Your task to perform on an android device: delete browsing data in the chrome app Image 0: 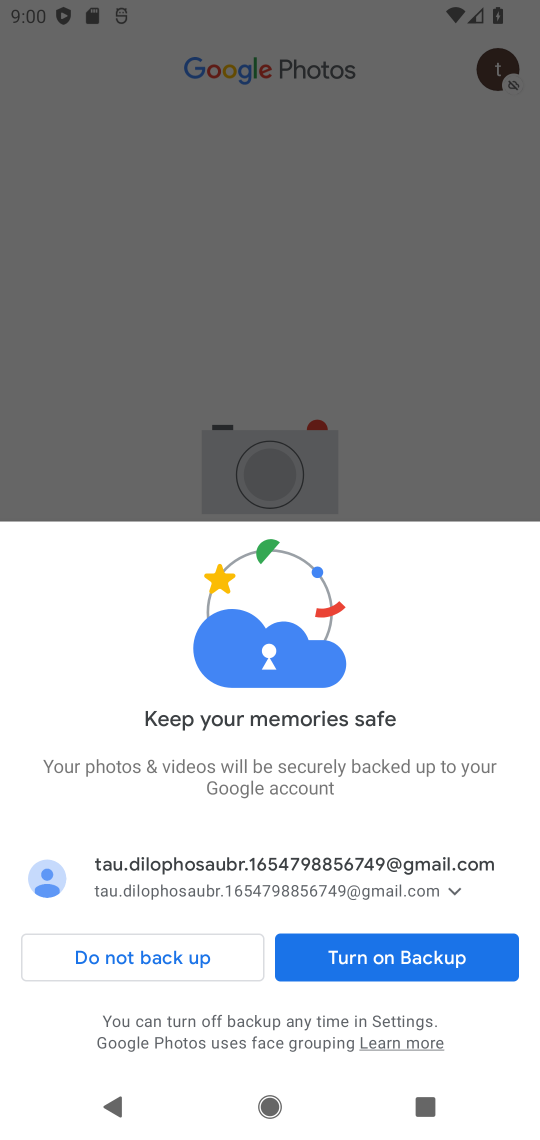
Step 0: press home button
Your task to perform on an android device: delete browsing data in the chrome app Image 1: 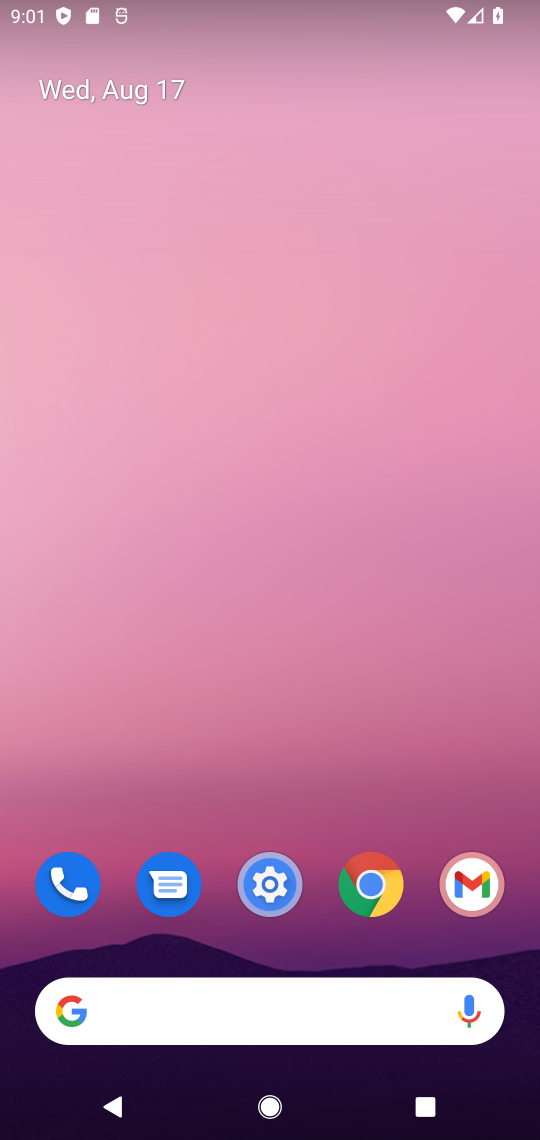
Step 1: click (359, 910)
Your task to perform on an android device: delete browsing data in the chrome app Image 2: 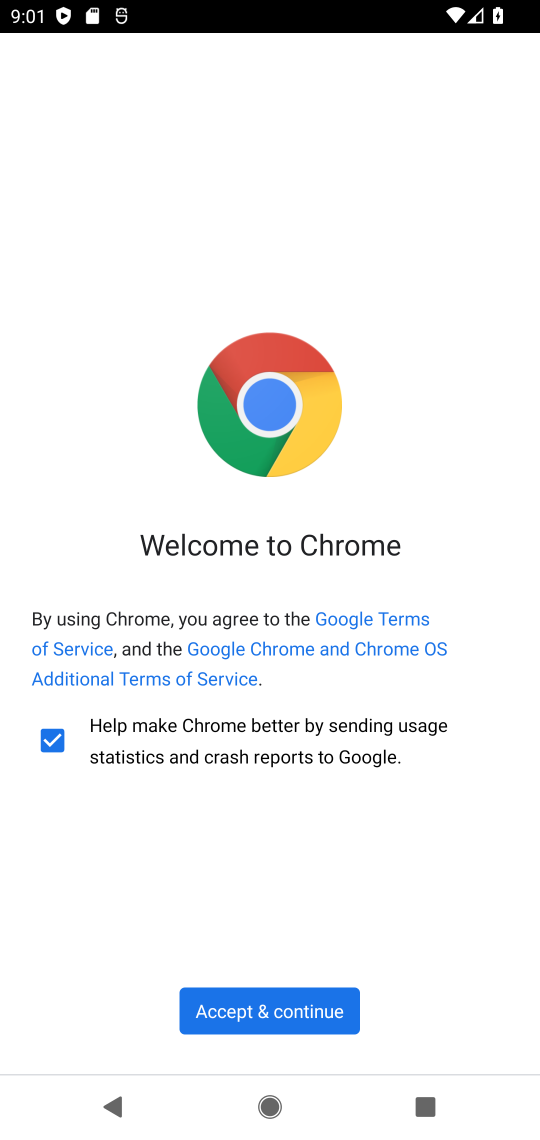
Step 2: click (226, 980)
Your task to perform on an android device: delete browsing data in the chrome app Image 3: 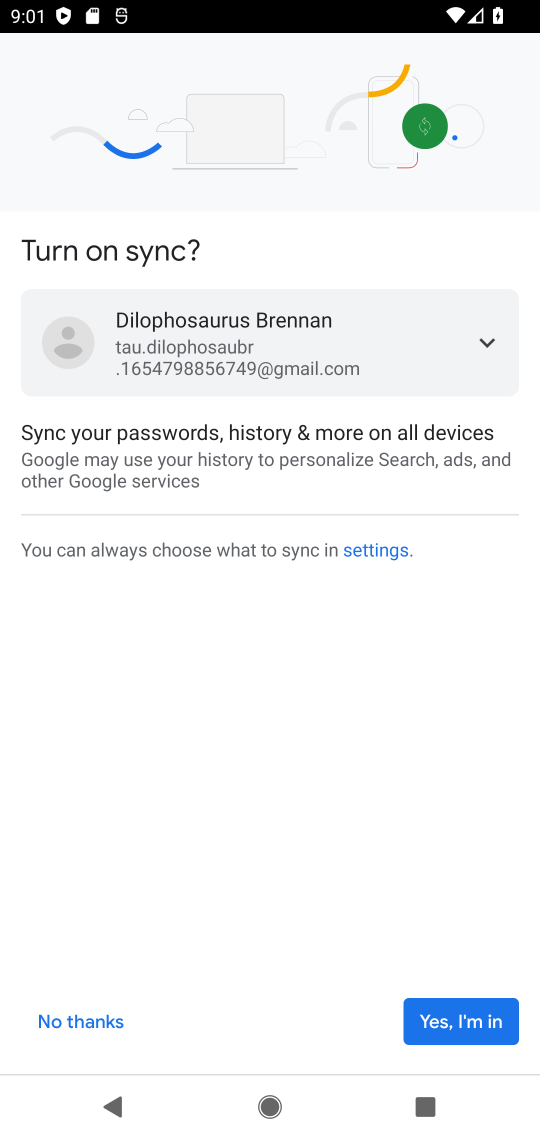
Step 3: click (421, 1015)
Your task to perform on an android device: delete browsing data in the chrome app Image 4: 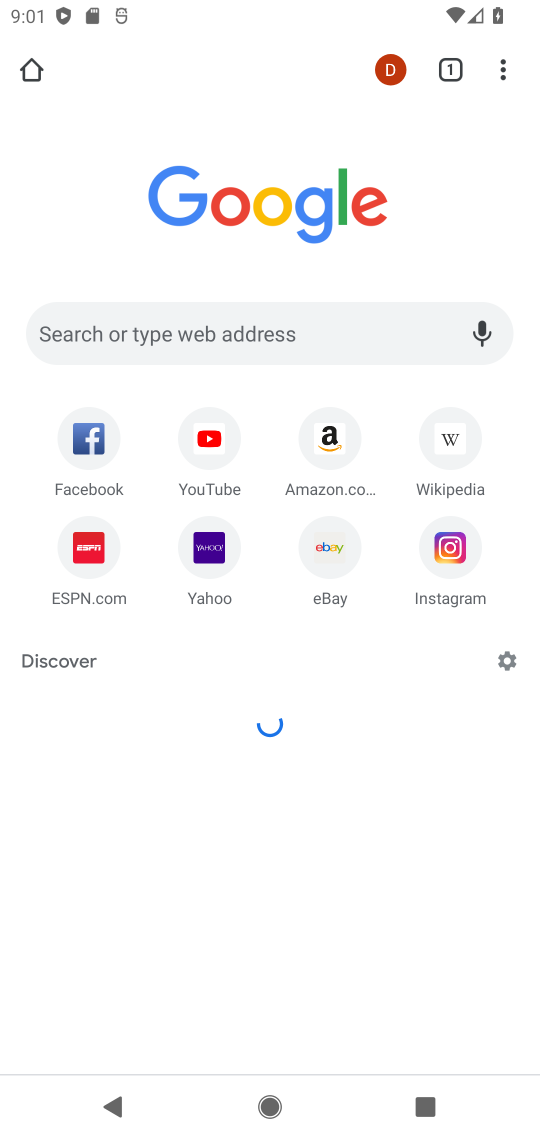
Step 4: click (494, 68)
Your task to perform on an android device: delete browsing data in the chrome app Image 5: 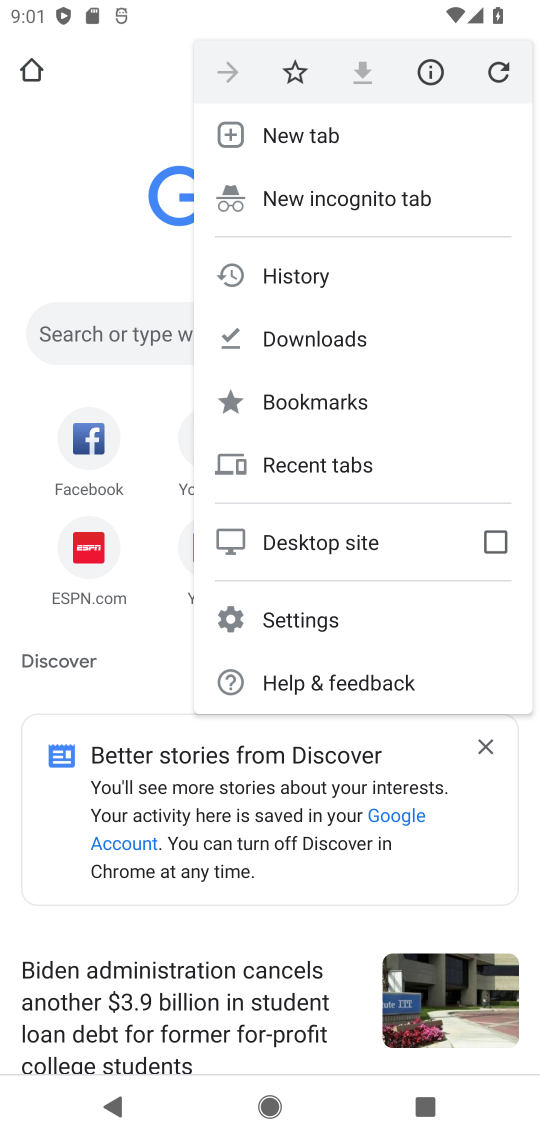
Step 5: click (279, 257)
Your task to perform on an android device: delete browsing data in the chrome app Image 6: 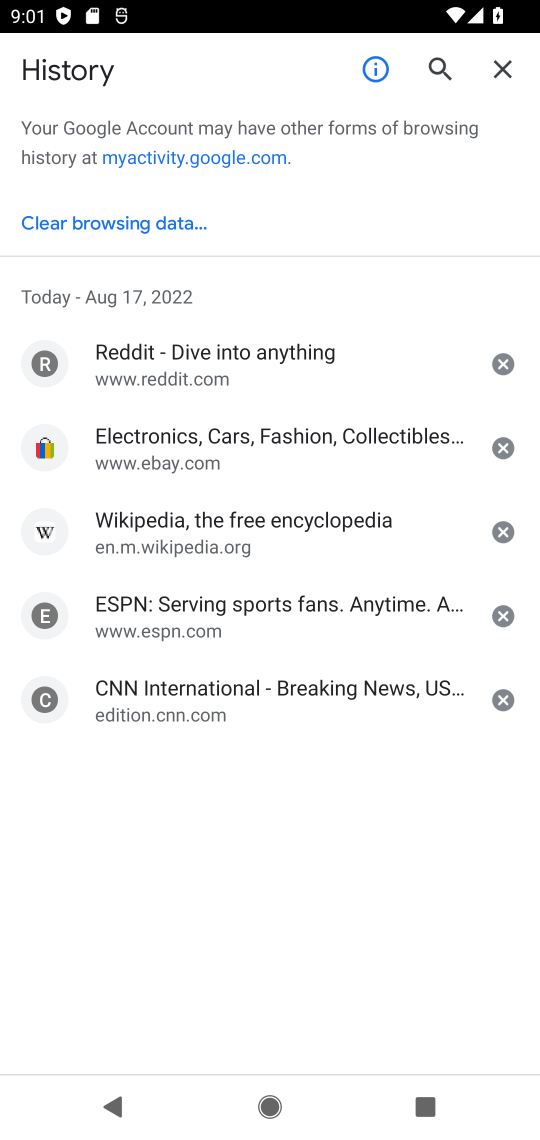
Step 6: click (76, 210)
Your task to perform on an android device: delete browsing data in the chrome app Image 7: 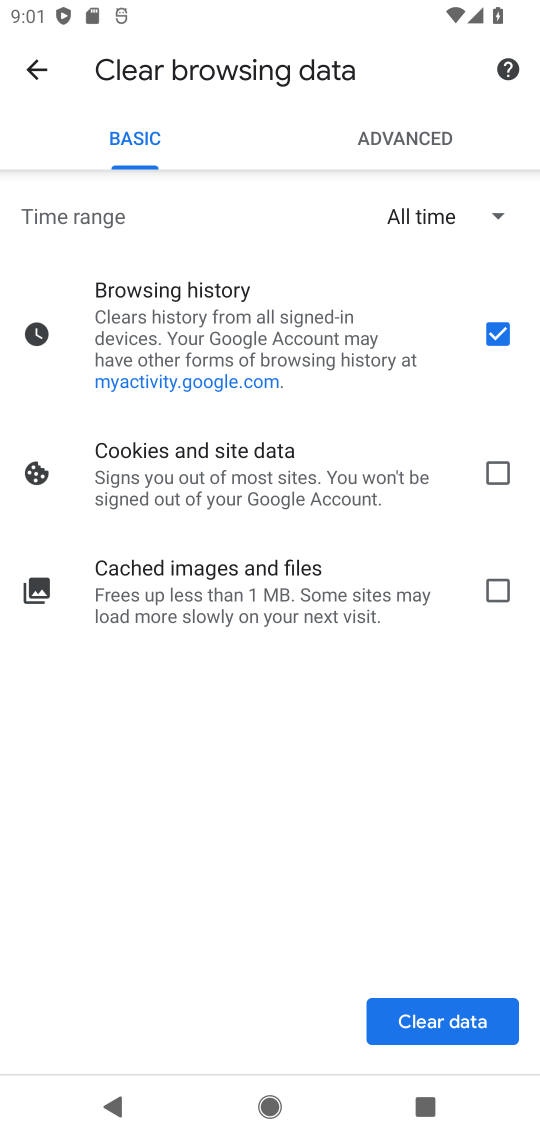
Step 7: click (488, 480)
Your task to perform on an android device: delete browsing data in the chrome app Image 8: 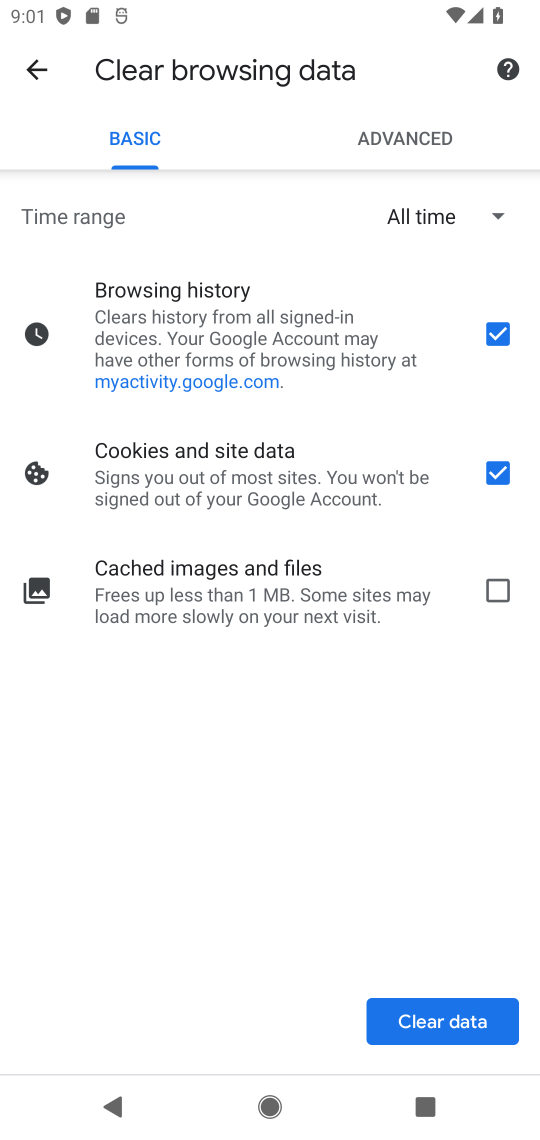
Step 8: click (498, 596)
Your task to perform on an android device: delete browsing data in the chrome app Image 9: 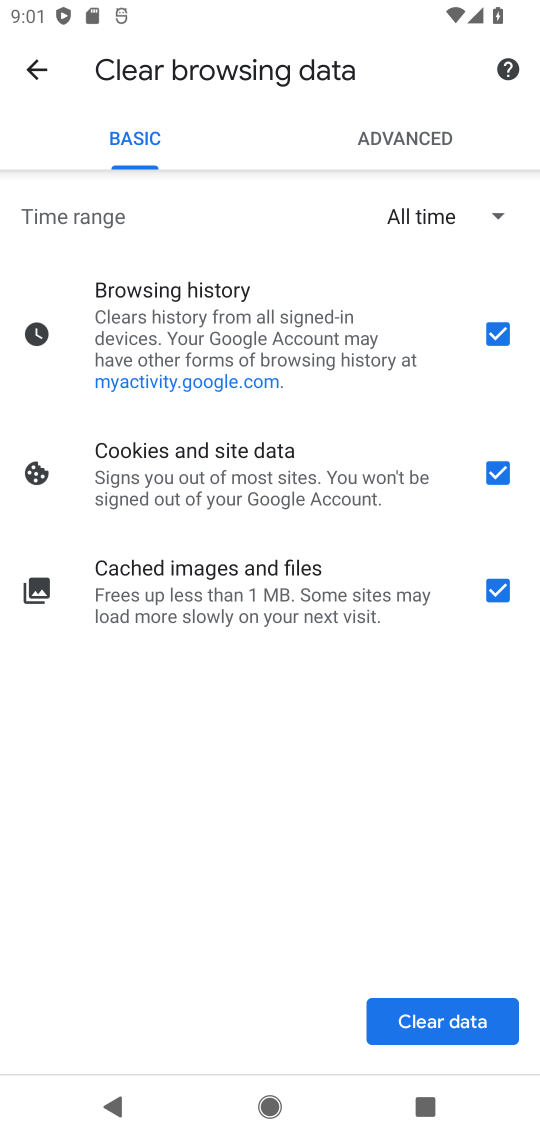
Step 9: click (460, 1022)
Your task to perform on an android device: delete browsing data in the chrome app Image 10: 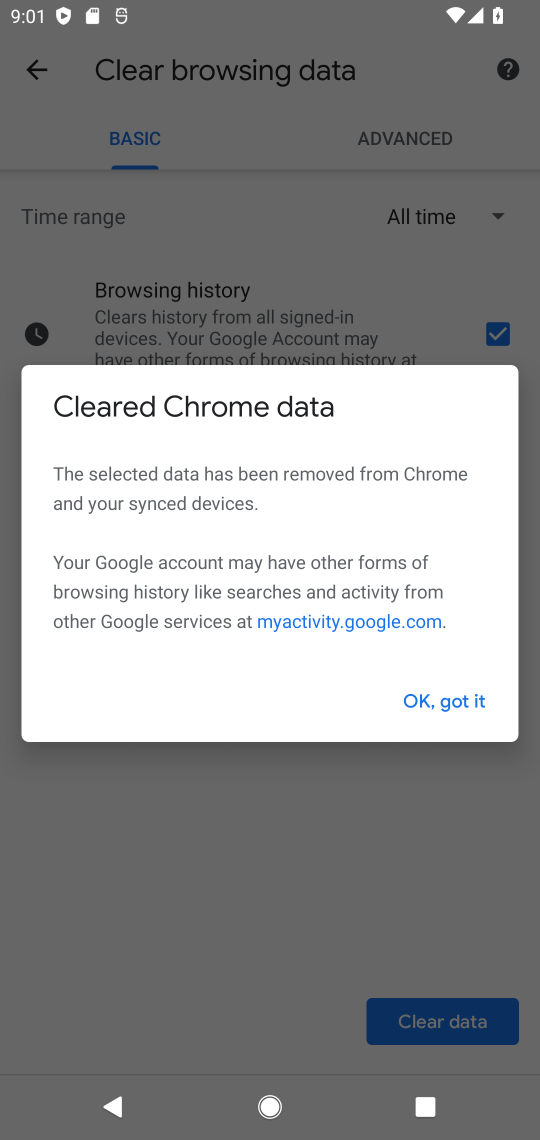
Step 10: click (422, 702)
Your task to perform on an android device: delete browsing data in the chrome app Image 11: 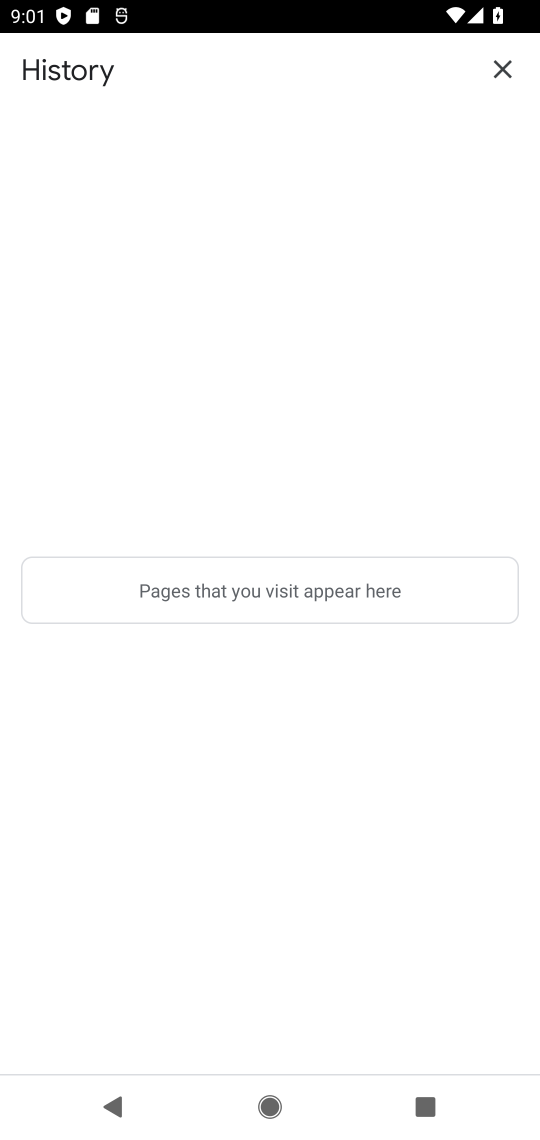
Step 11: task complete